Your task to perform on an android device: turn off javascript in the chrome app Image 0: 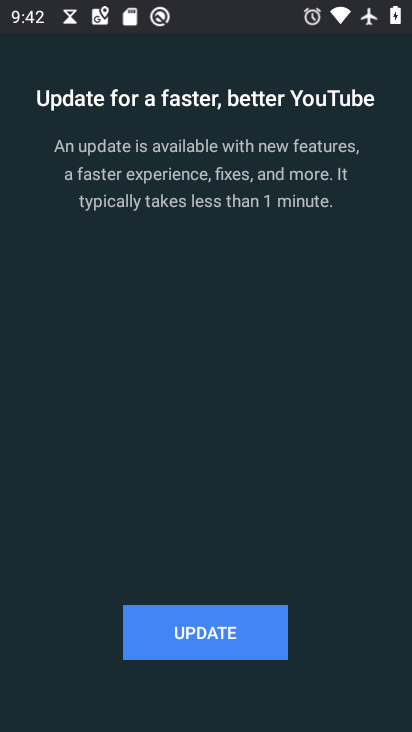
Step 0: press home button
Your task to perform on an android device: turn off javascript in the chrome app Image 1: 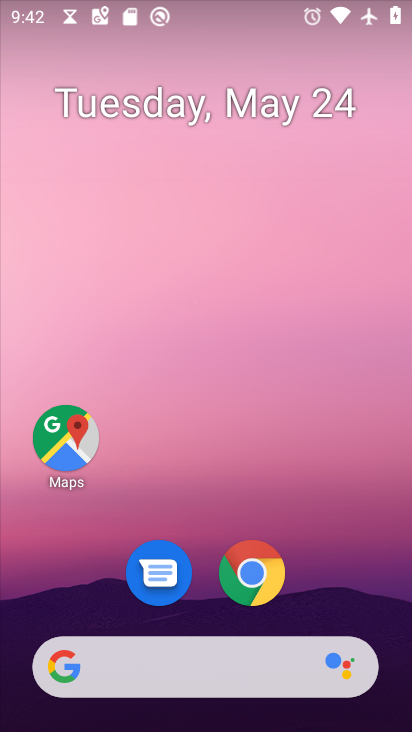
Step 1: drag from (340, 547) to (211, 21)
Your task to perform on an android device: turn off javascript in the chrome app Image 2: 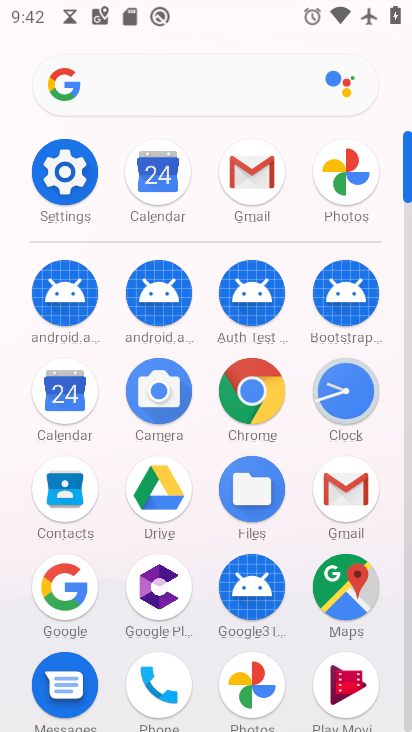
Step 2: click (255, 388)
Your task to perform on an android device: turn off javascript in the chrome app Image 3: 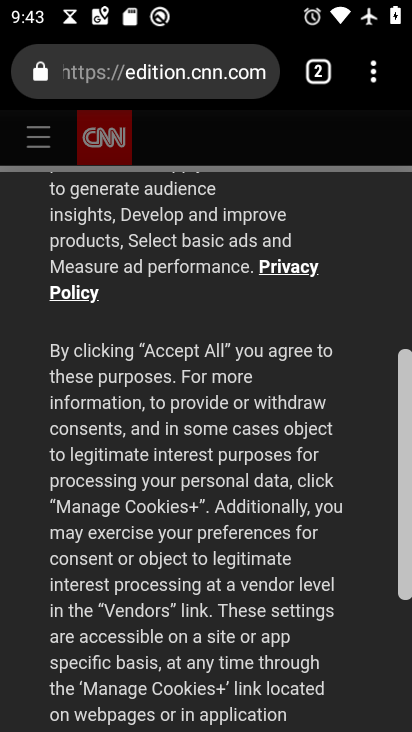
Step 3: drag from (370, 85) to (178, 563)
Your task to perform on an android device: turn off javascript in the chrome app Image 4: 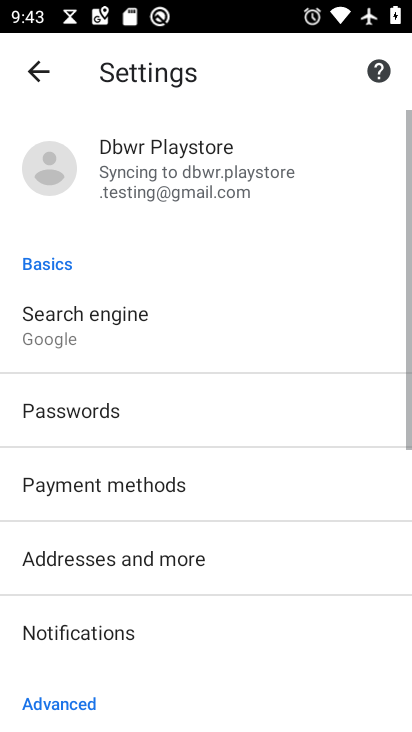
Step 4: drag from (160, 614) to (119, 145)
Your task to perform on an android device: turn off javascript in the chrome app Image 5: 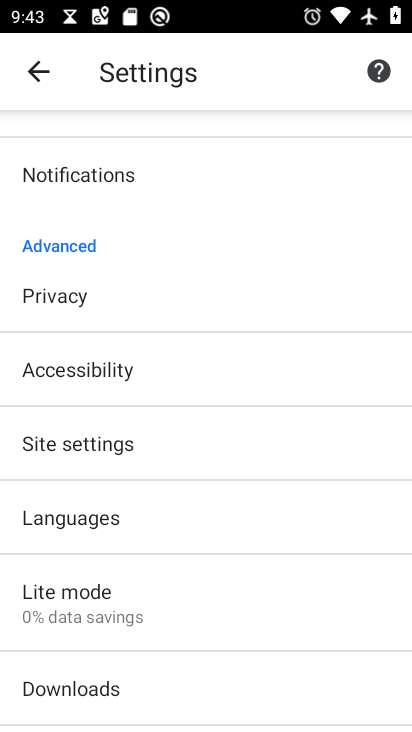
Step 5: click (39, 418)
Your task to perform on an android device: turn off javascript in the chrome app Image 6: 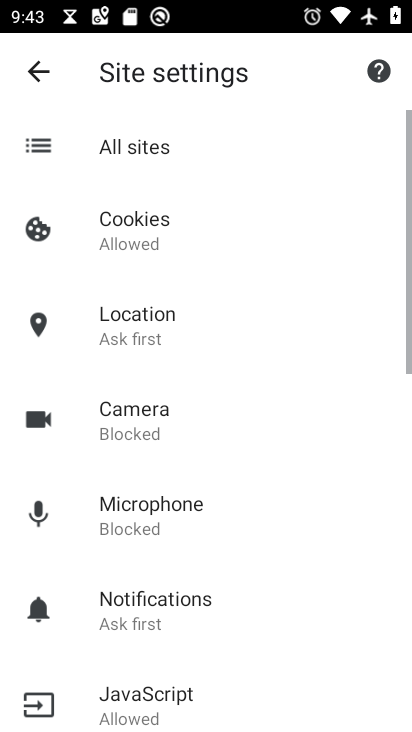
Step 6: drag from (197, 648) to (141, 100)
Your task to perform on an android device: turn off javascript in the chrome app Image 7: 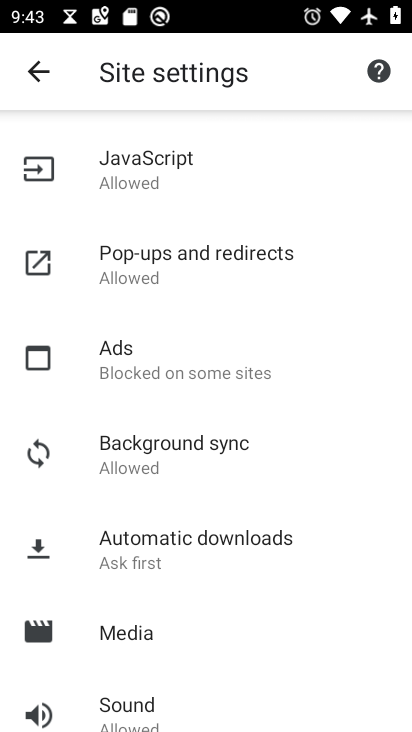
Step 7: click (128, 160)
Your task to perform on an android device: turn off javascript in the chrome app Image 8: 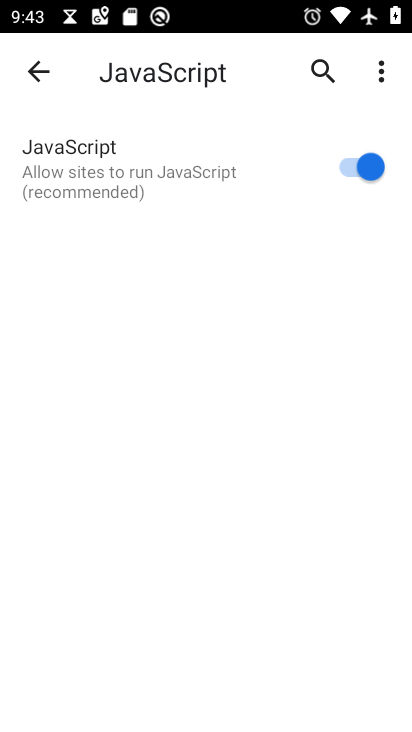
Step 8: click (351, 177)
Your task to perform on an android device: turn off javascript in the chrome app Image 9: 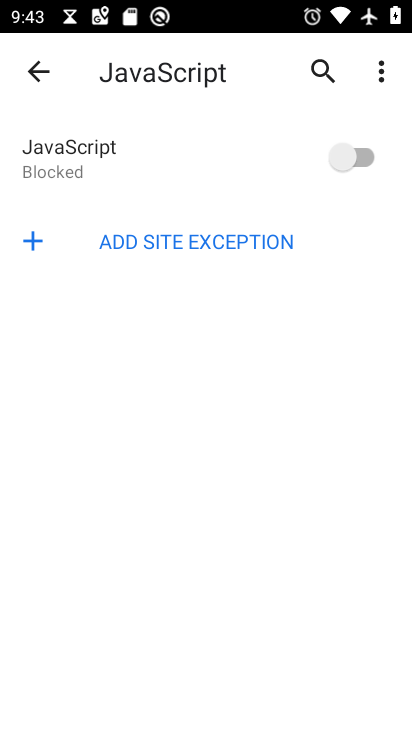
Step 9: task complete